Your task to perform on an android device: find snoozed emails in the gmail app Image 0: 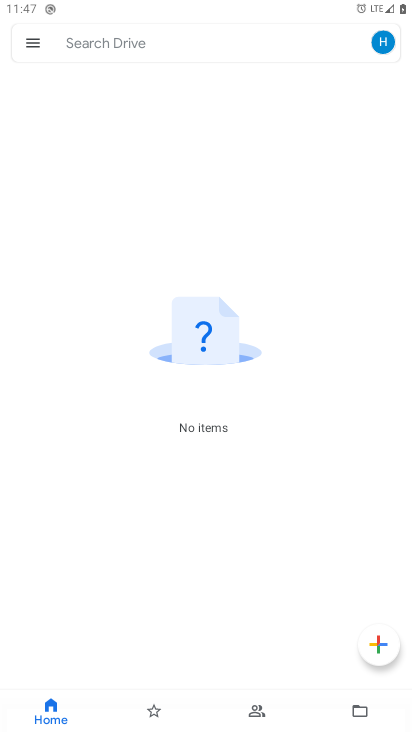
Step 0: press home button
Your task to perform on an android device: find snoozed emails in the gmail app Image 1: 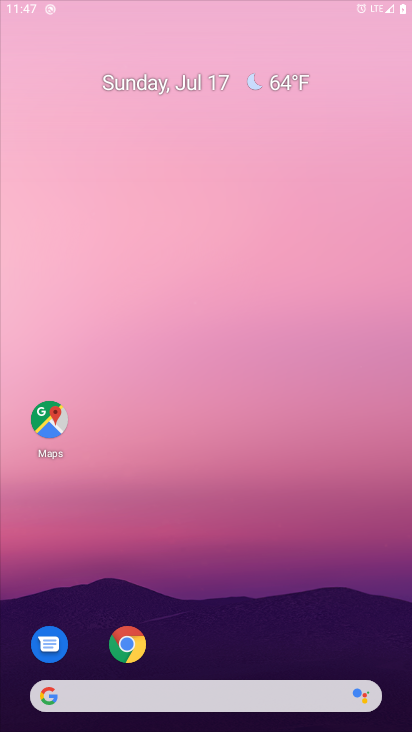
Step 1: drag from (250, 609) to (282, 1)
Your task to perform on an android device: find snoozed emails in the gmail app Image 2: 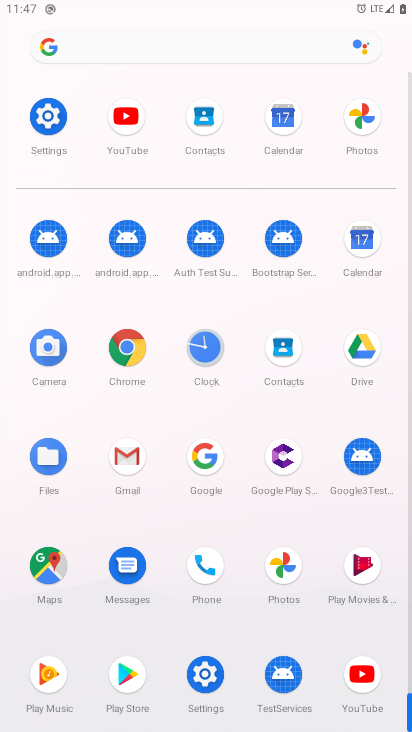
Step 2: click (129, 446)
Your task to perform on an android device: find snoozed emails in the gmail app Image 3: 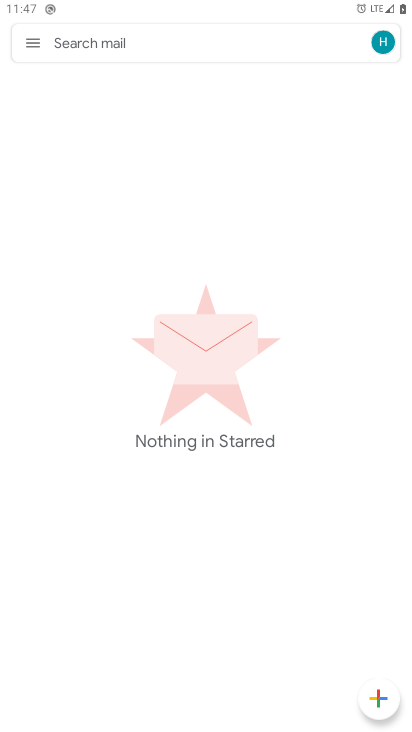
Step 3: click (30, 50)
Your task to perform on an android device: find snoozed emails in the gmail app Image 4: 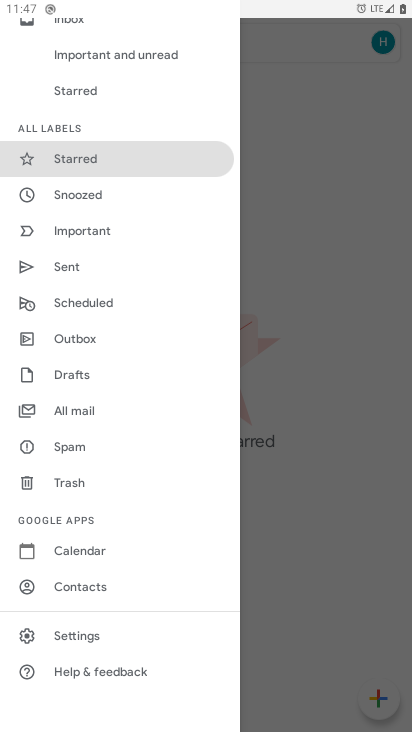
Step 4: click (84, 195)
Your task to perform on an android device: find snoozed emails in the gmail app Image 5: 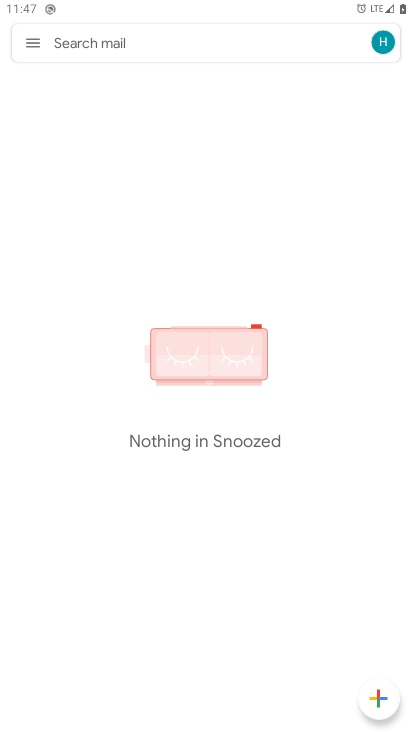
Step 5: task complete